Your task to perform on an android device: How much does the Sony TV cost? Image 0: 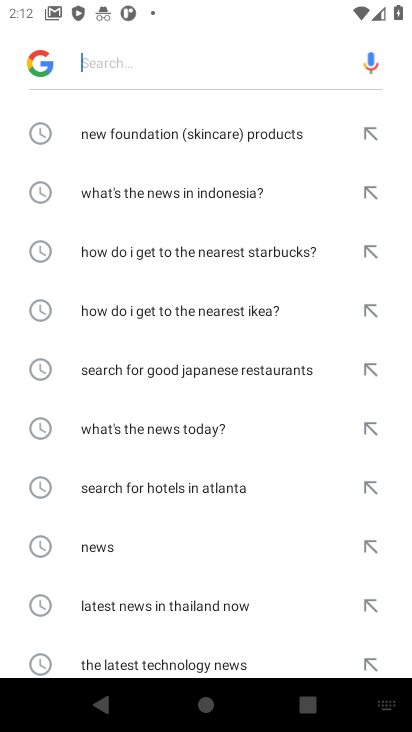
Step 0: task impossible